Your task to perform on an android device: Show me the alarms in the clock app Image 0: 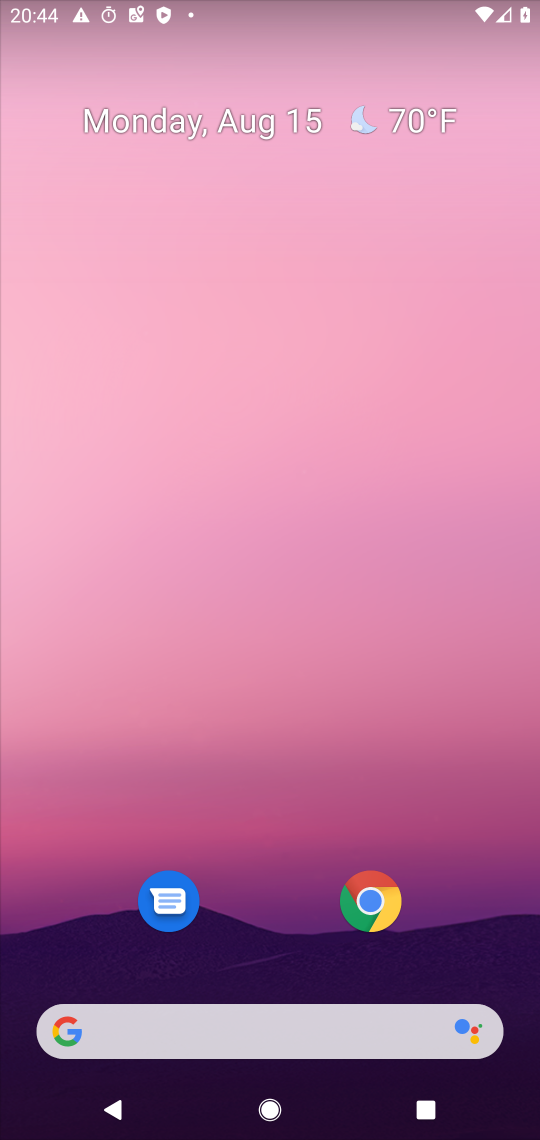
Step 0: drag from (264, 806) to (274, 112)
Your task to perform on an android device: Show me the alarms in the clock app Image 1: 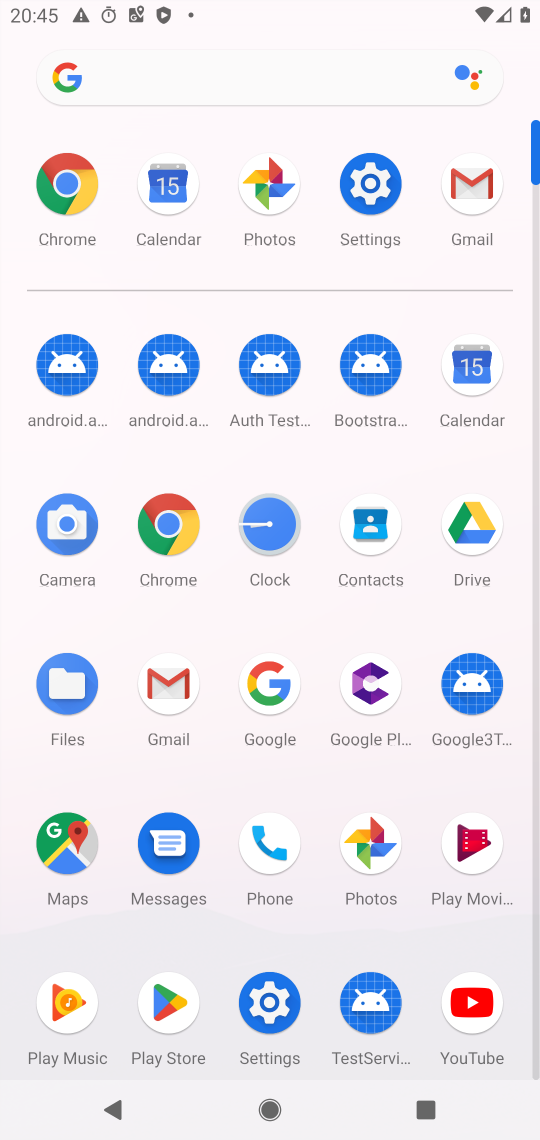
Step 1: click (274, 525)
Your task to perform on an android device: Show me the alarms in the clock app Image 2: 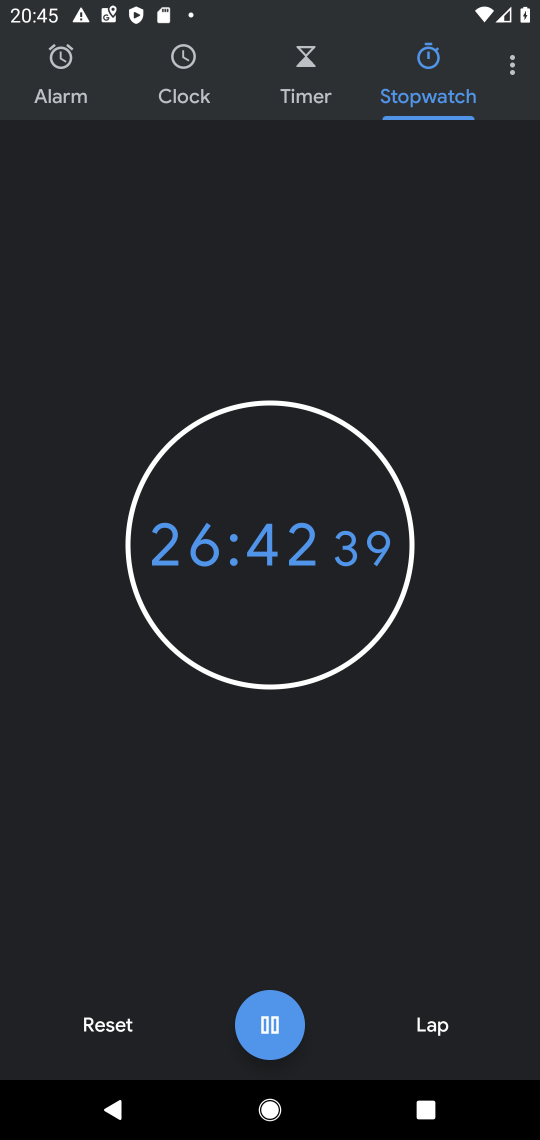
Step 2: click (101, 1020)
Your task to perform on an android device: Show me the alarms in the clock app Image 3: 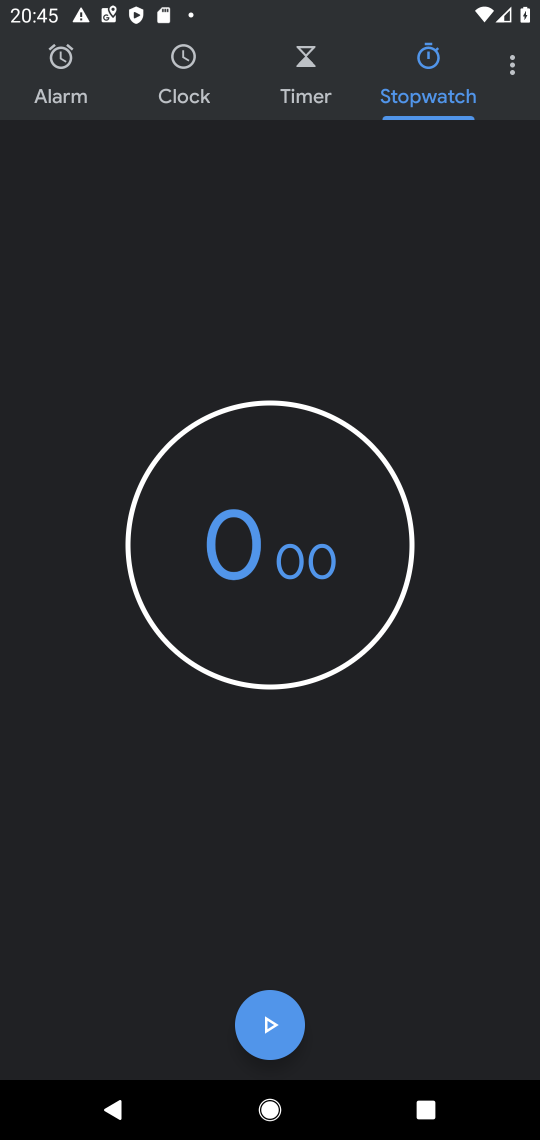
Step 3: click (76, 80)
Your task to perform on an android device: Show me the alarms in the clock app Image 4: 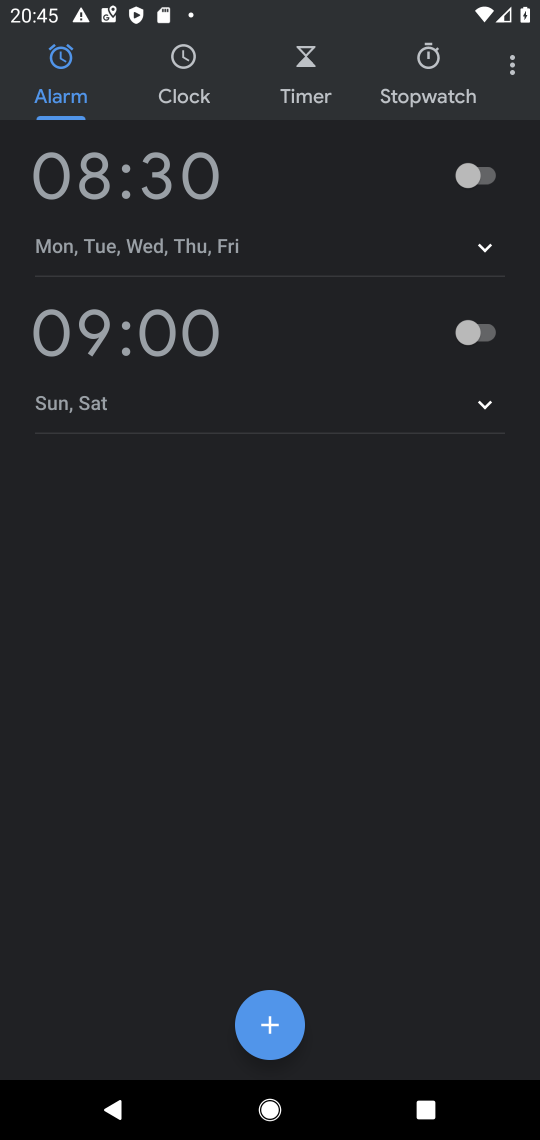
Step 4: task complete